Your task to perform on an android device: change the clock style Image 0: 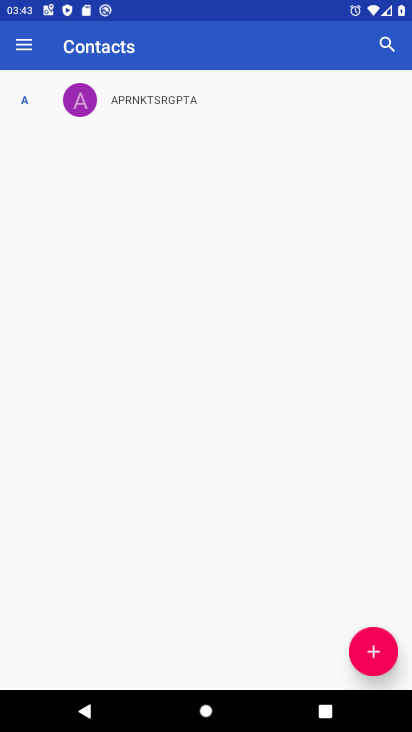
Step 0: press home button
Your task to perform on an android device: change the clock style Image 1: 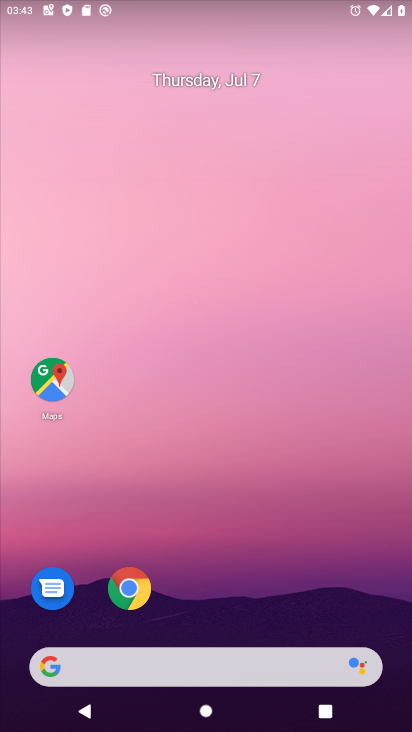
Step 1: drag from (217, 522) to (206, 182)
Your task to perform on an android device: change the clock style Image 2: 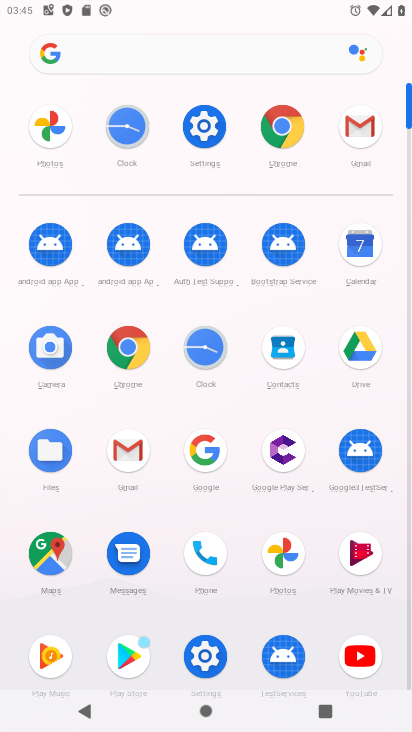
Step 2: click (209, 347)
Your task to perform on an android device: change the clock style Image 3: 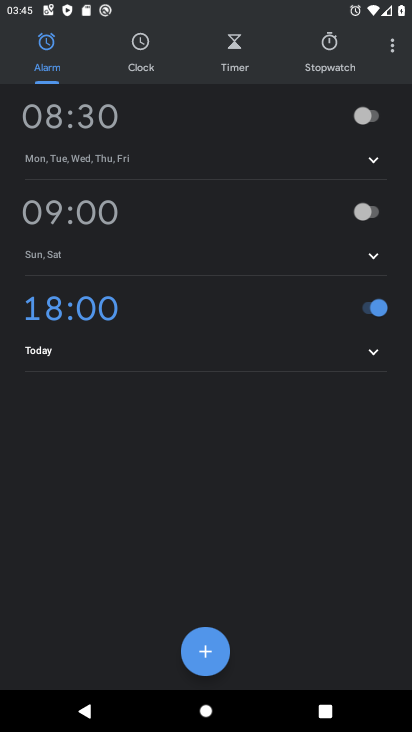
Step 3: click (397, 46)
Your task to perform on an android device: change the clock style Image 4: 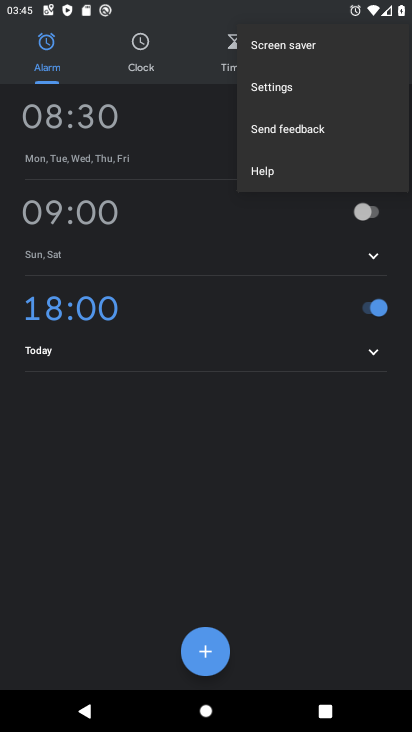
Step 4: click (288, 87)
Your task to perform on an android device: change the clock style Image 5: 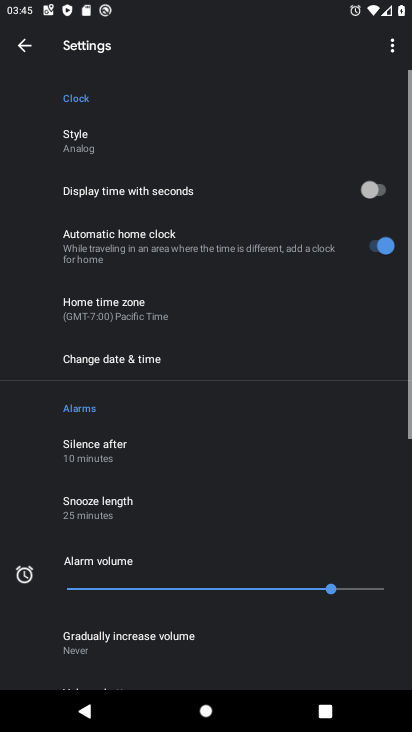
Step 5: click (102, 149)
Your task to perform on an android device: change the clock style Image 6: 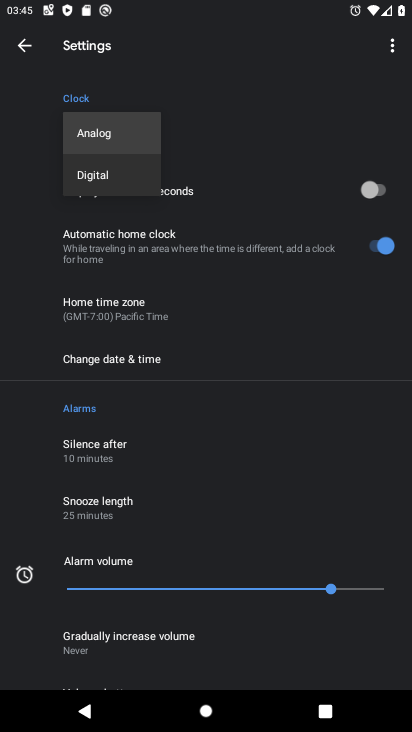
Step 6: click (102, 176)
Your task to perform on an android device: change the clock style Image 7: 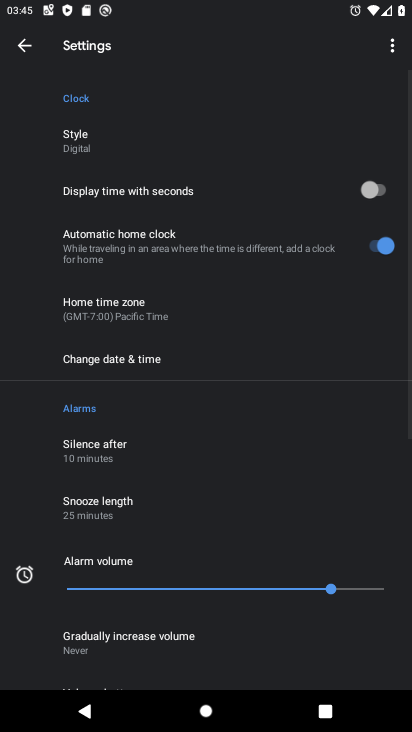
Step 7: task complete